Your task to perform on an android device: check out phone information Image 0: 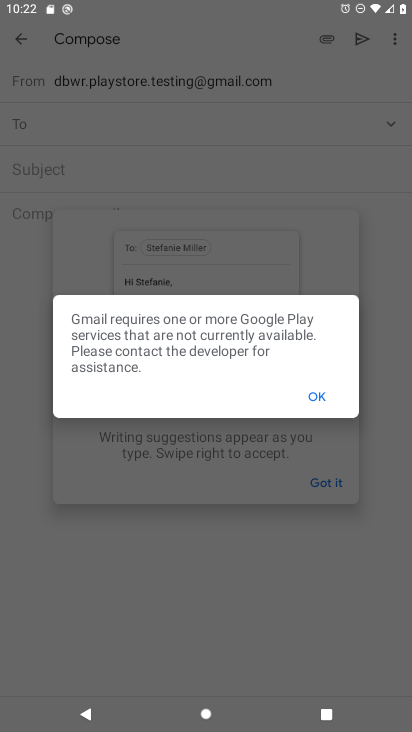
Step 0: press home button
Your task to perform on an android device: check out phone information Image 1: 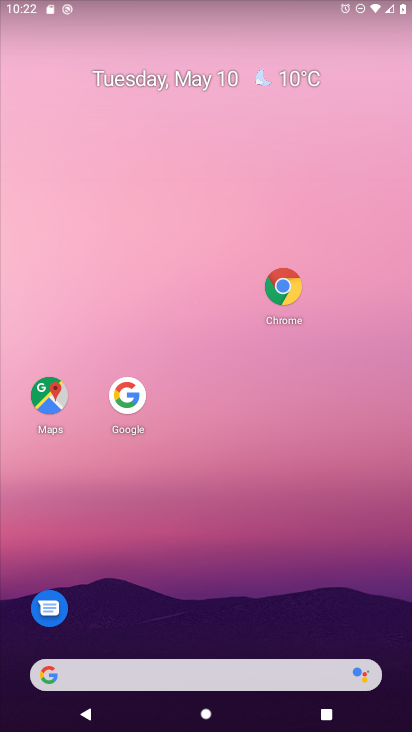
Step 1: drag from (111, 670) to (251, 135)
Your task to perform on an android device: check out phone information Image 2: 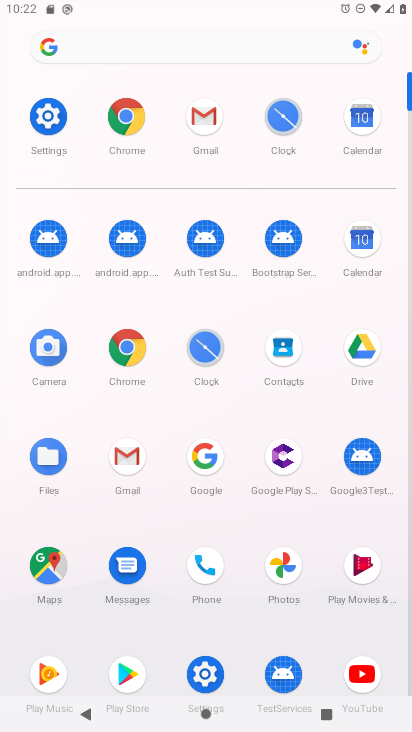
Step 2: click (47, 122)
Your task to perform on an android device: check out phone information Image 3: 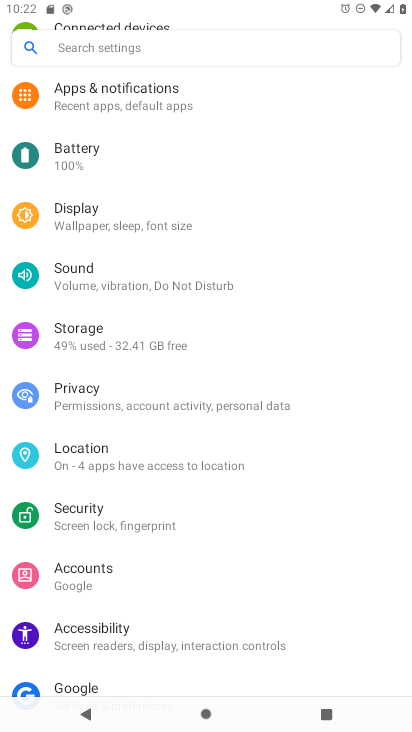
Step 3: drag from (121, 669) to (355, 13)
Your task to perform on an android device: check out phone information Image 4: 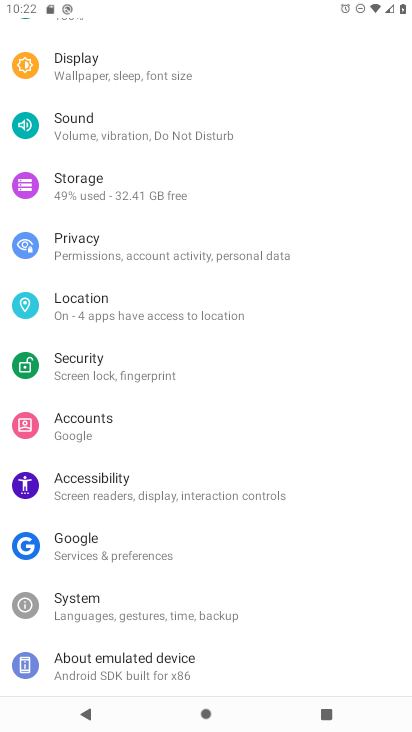
Step 4: click (98, 660)
Your task to perform on an android device: check out phone information Image 5: 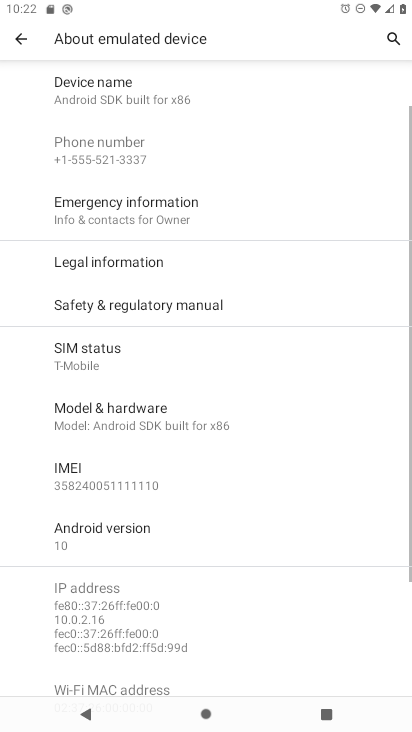
Step 5: task complete